Your task to perform on an android device: star an email in the gmail app Image 0: 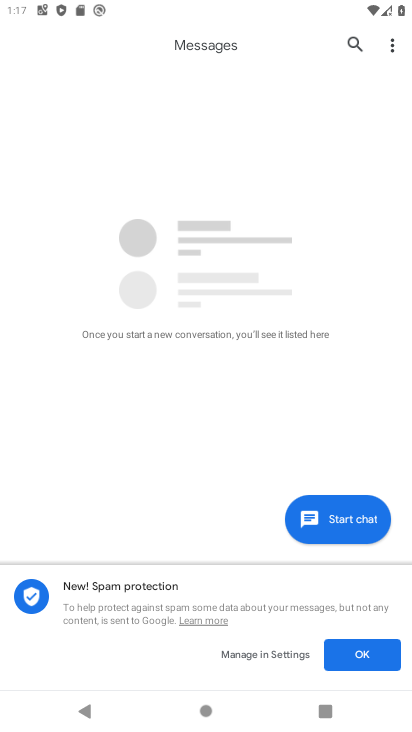
Step 0: press home button
Your task to perform on an android device: star an email in the gmail app Image 1: 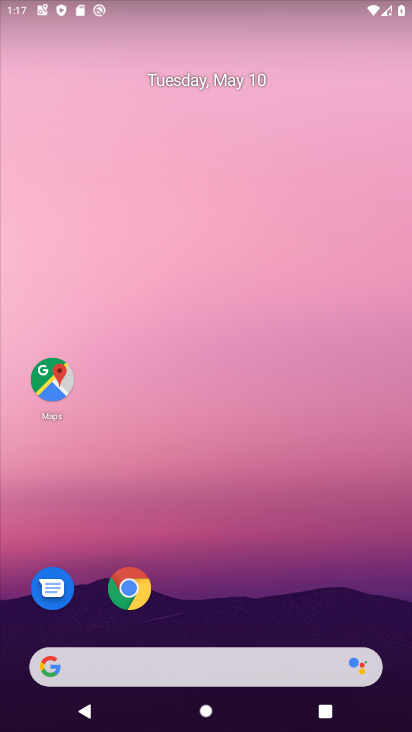
Step 1: drag from (257, 620) to (344, 0)
Your task to perform on an android device: star an email in the gmail app Image 2: 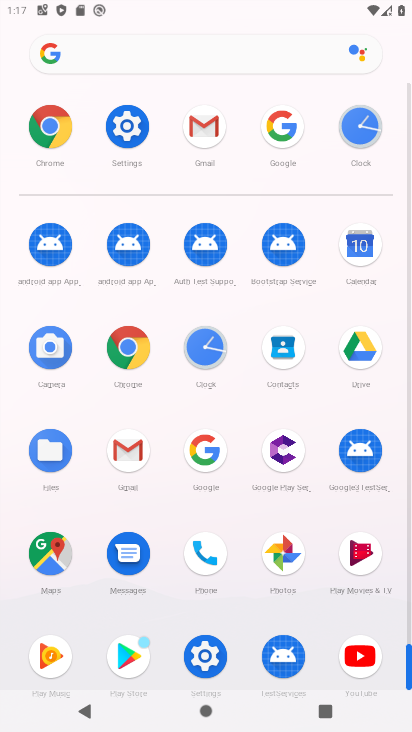
Step 2: click (131, 444)
Your task to perform on an android device: star an email in the gmail app Image 3: 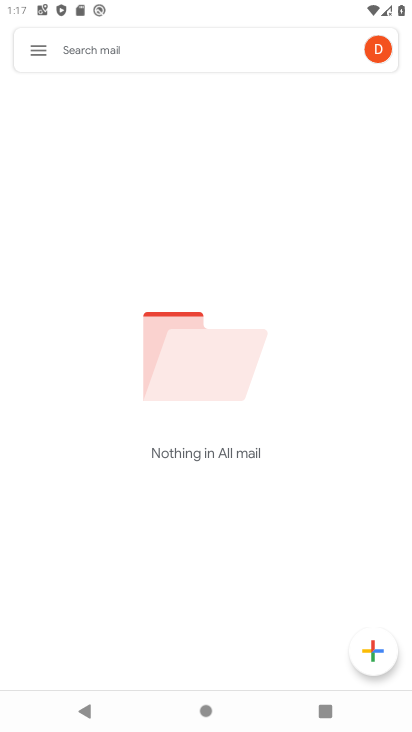
Step 3: click (36, 47)
Your task to perform on an android device: star an email in the gmail app Image 4: 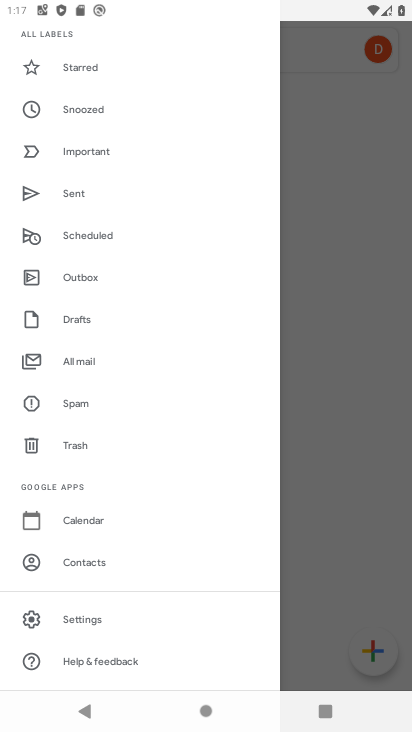
Step 4: click (99, 64)
Your task to perform on an android device: star an email in the gmail app Image 5: 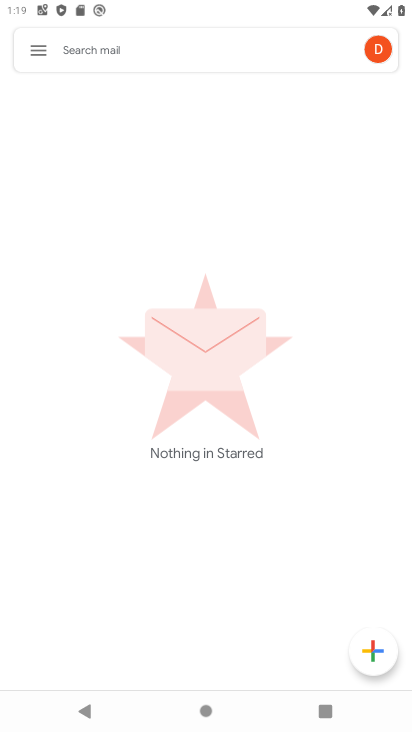
Step 5: task complete